Your task to perform on an android device: see sites visited before in the chrome app Image 0: 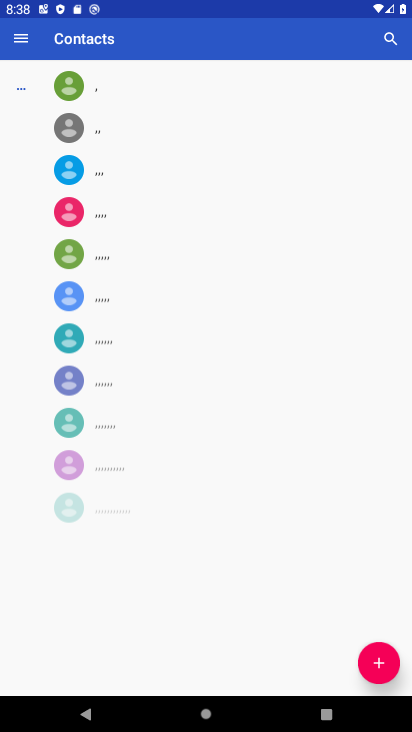
Step 0: click (123, 603)
Your task to perform on an android device: see sites visited before in the chrome app Image 1: 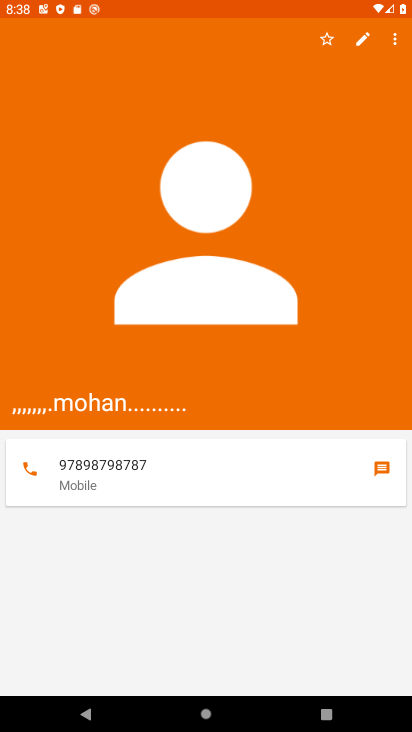
Step 1: press home button
Your task to perform on an android device: see sites visited before in the chrome app Image 2: 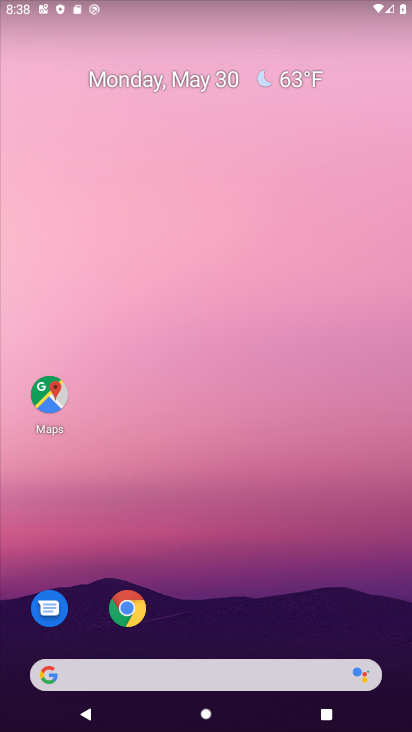
Step 2: click (126, 608)
Your task to perform on an android device: see sites visited before in the chrome app Image 3: 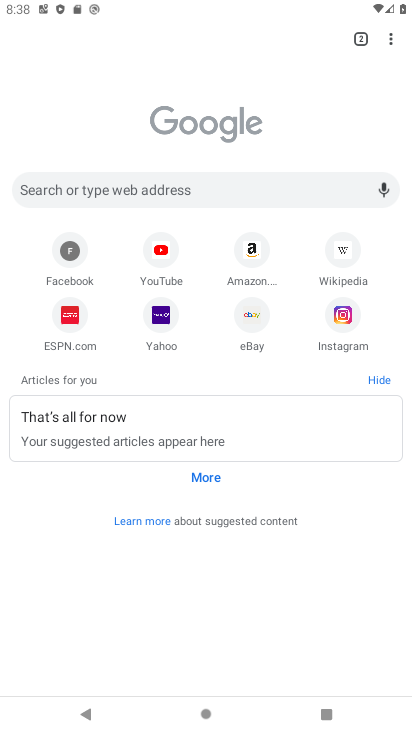
Step 3: click (389, 35)
Your task to perform on an android device: see sites visited before in the chrome app Image 4: 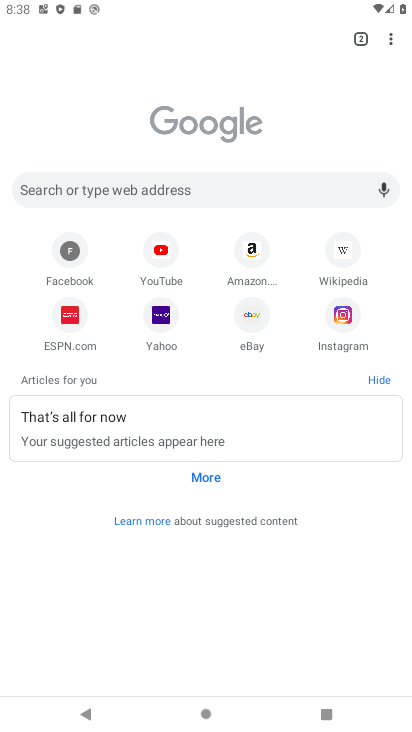
Step 4: click (392, 34)
Your task to perform on an android device: see sites visited before in the chrome app Image 5: 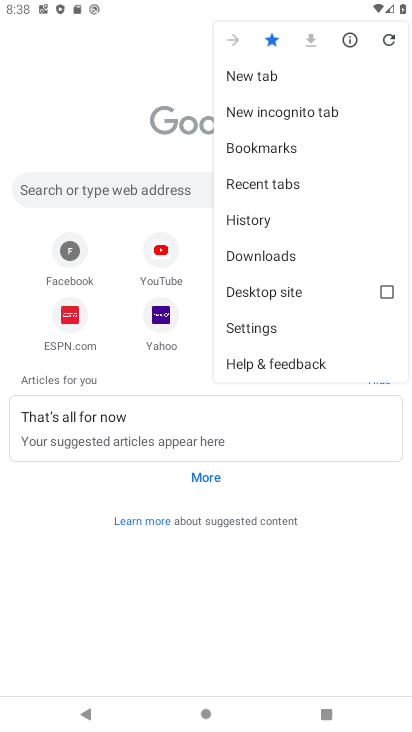
Step 5: click (251, 327)
Your task to perform on an android device: see sites visited before in the chrome app Image 6: 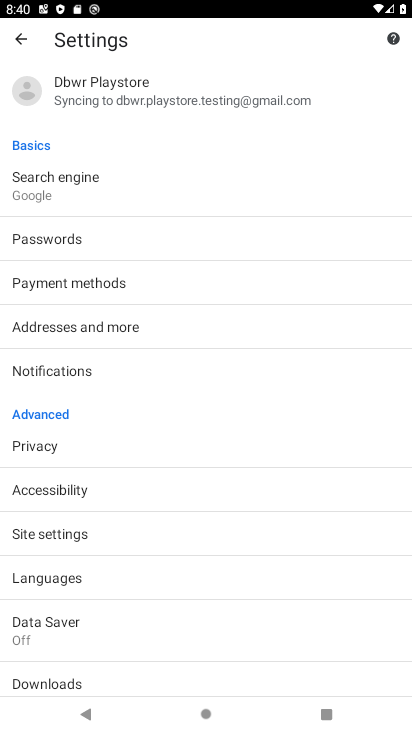
Step 6: click (78, 533)
Your task to perform on an android device: see sites visited before in the chrome app Image 7: 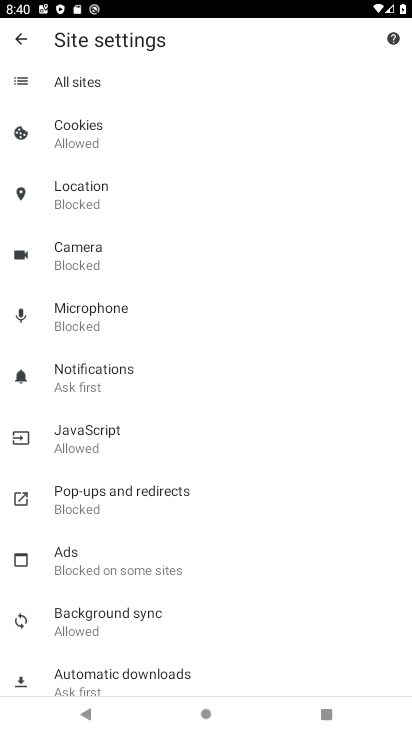
Step 7: click (14, 37)
Your task to perform on an android device: see sites visited before in the chrome app Image 8: 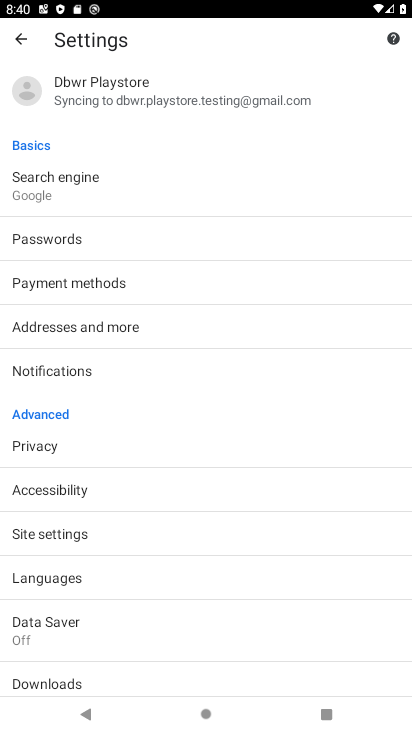
Step 8: click (25, 38)
Your task to perform on an android device: see sites visited before in the chrome app Image 9: 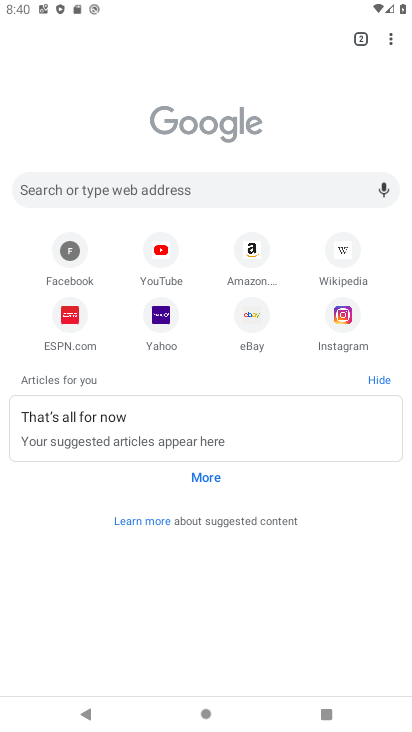
Step 9: click (389, 36)
Your task to perform on an android device: see sites visited before in the chrome app Image 10: 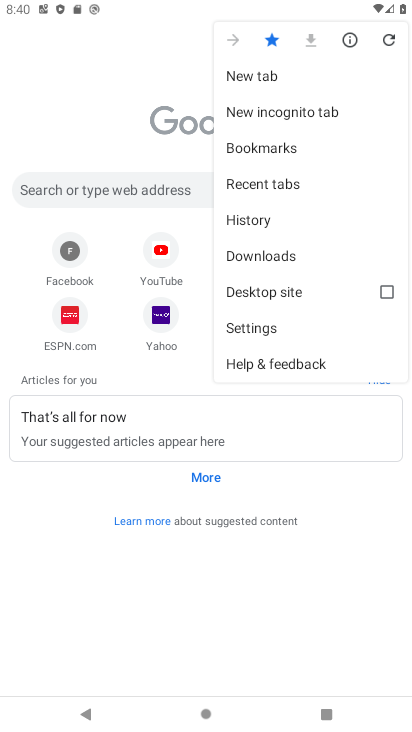
Step 10: click (254, 181)
Your task to perform on an android device: see sites visited before in the chrome app Image 11: 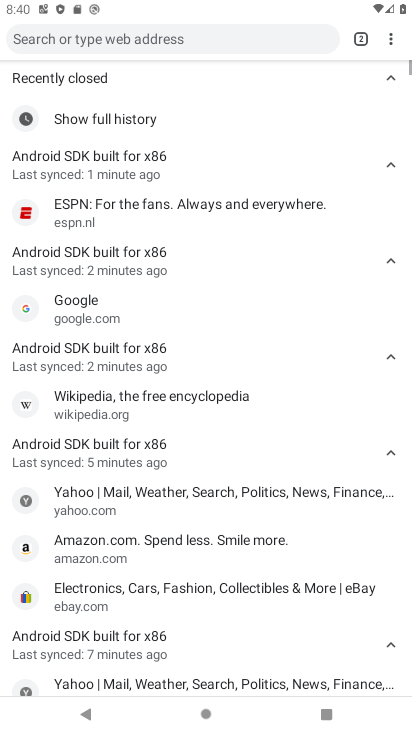
Step 11: task complete